Your task to perform on an android device: remove spam from my inbox in the gmail app Image 0: 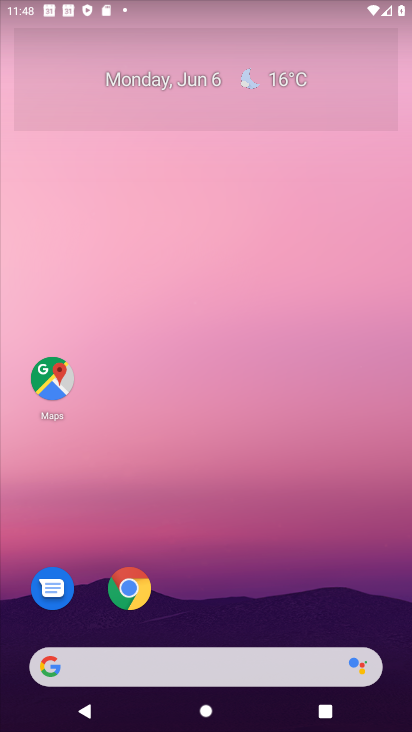
Step 0: drag from (259, 581) to (171, 132)
Your task to perform on an android device: remove spam from my inbox in the gmail app Image 1: 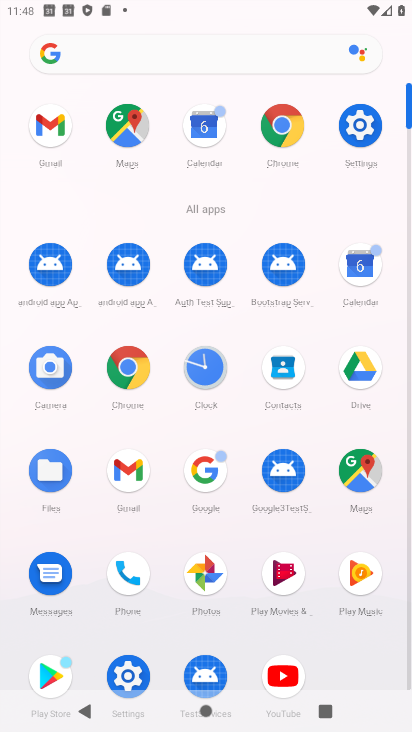
Step 1: click (49, 125)
Your task to perform on an android device: remove spam from my inbox in the gmail app Image 2: 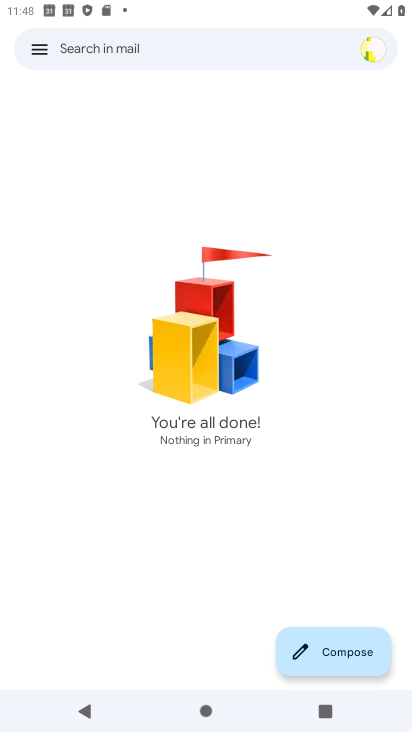
Step 2: click (38, 52)
Your task to perform on an android device: remove spam from my inbox in the gmail app Image 3: 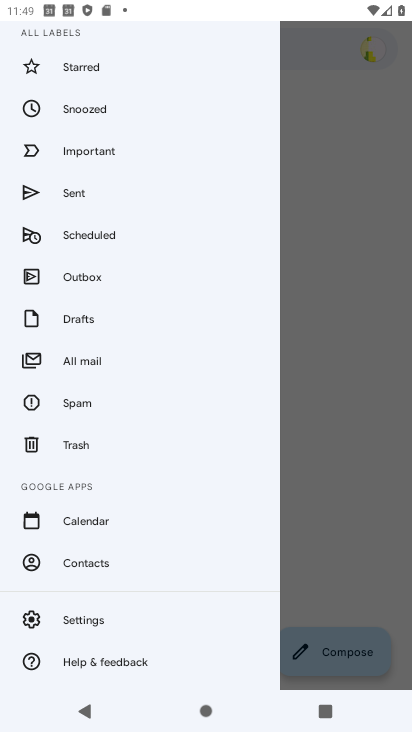
Step 3: click (81, 406)
Your task to perform on an android device: remove spam from my inbox in the gmail app Image 4: 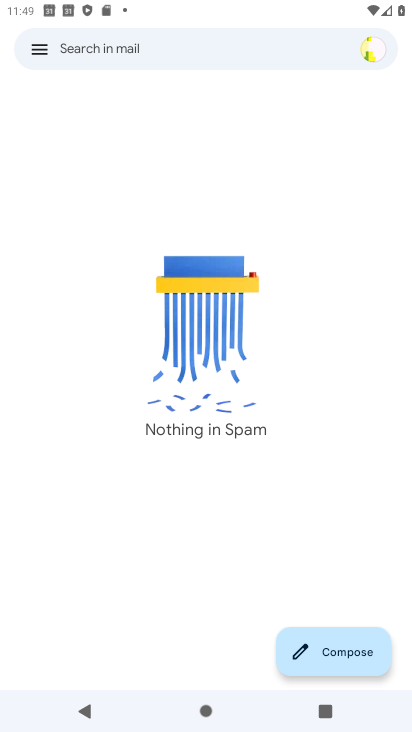
Step 4: task complete